Your task to perform on an android device: Go to CNN.com Image 0: 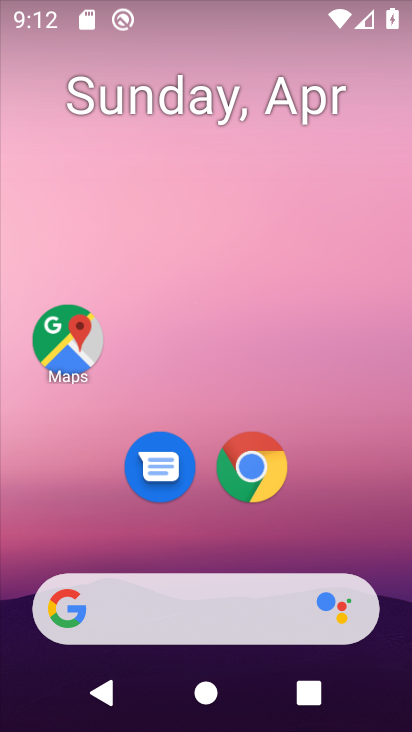
Step 0: click (270, 462)
Your task to perform on an android device: Go to CNN.com Image 1: 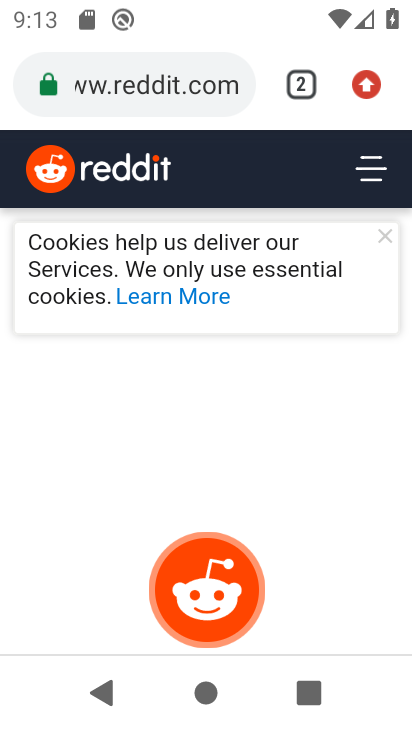
Step 1: click (163, 86)
Your task to perform on an android device: Go to CNN.com Image 2: 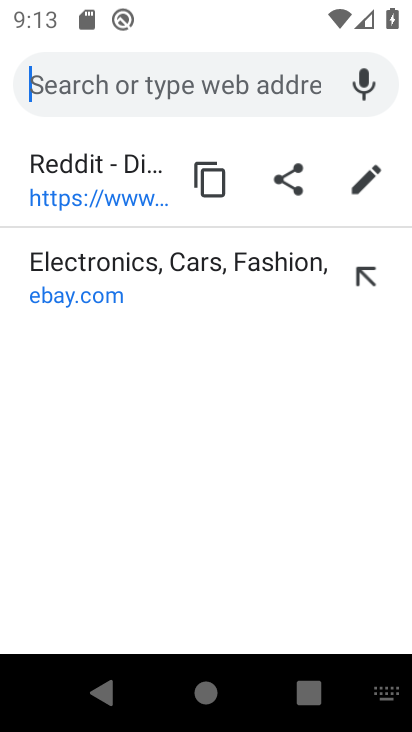
Step 2: type "CNN."
Your task to perform on an android device: Go to CNN.com Image 3: 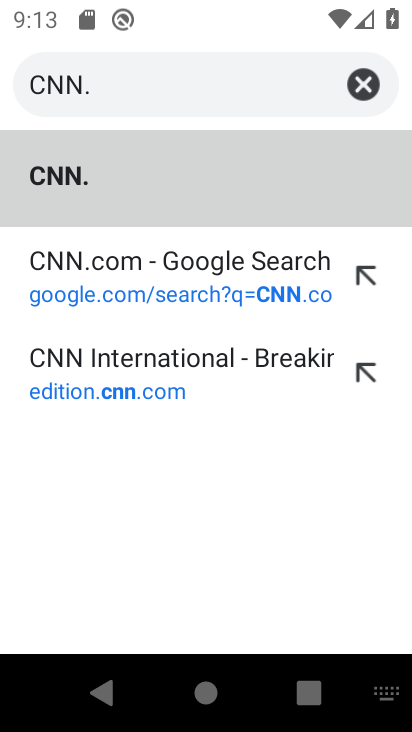
Step 3: click (84, 291)
Your task to perform on an android device: Go to CNN.com Image 4: 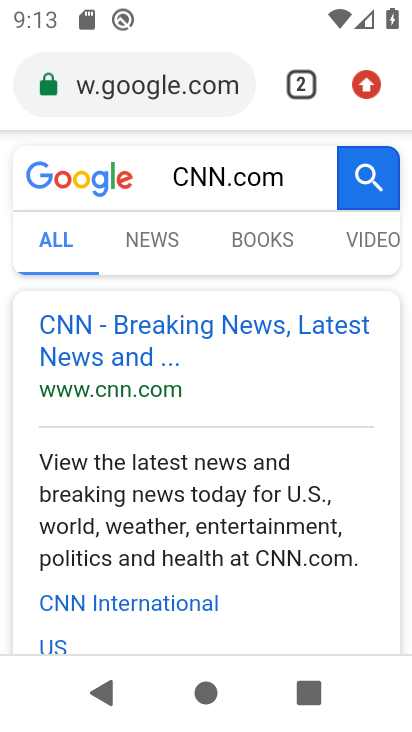
Step 4: click (203, 327)
Your task to perform on an android device: Go to CNN.com Image 5: 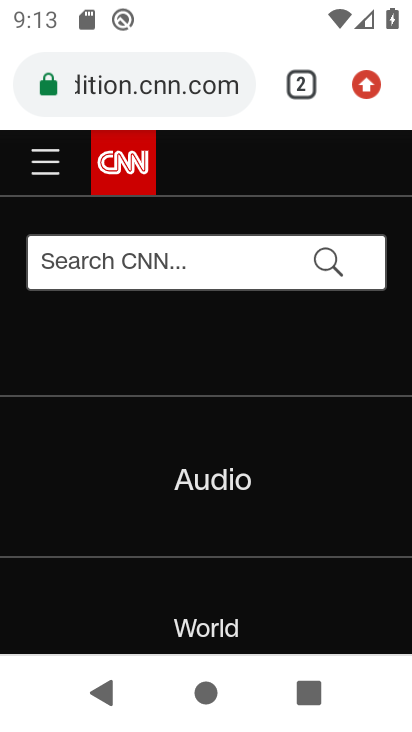
Step 5: task complete